Your task to perform on an android device: star an email in the gmail app Image 0: 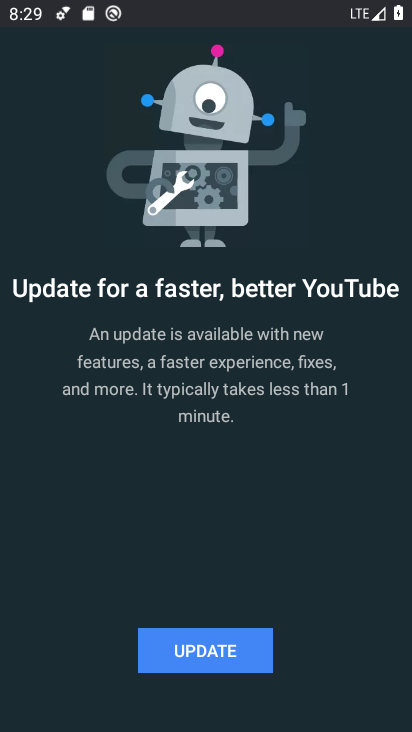
Step 0: press back button
Your task to perform on an android device: star an email in the gmail app Image 1: 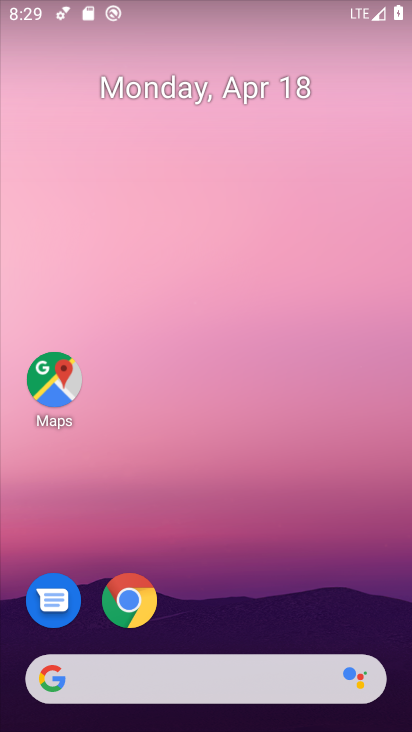
Step 1: drag from (271, 564) to (179, 43)
Your task to perform on an android device: star an email in the gmail app Image 2: 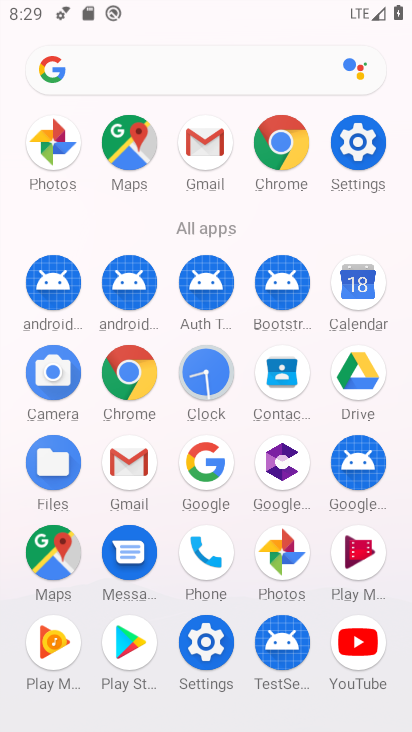
Step 2: drag from (16, 500) to (3, 275)
Your task to perform on an android device: star an email in the gmail app Image 3: 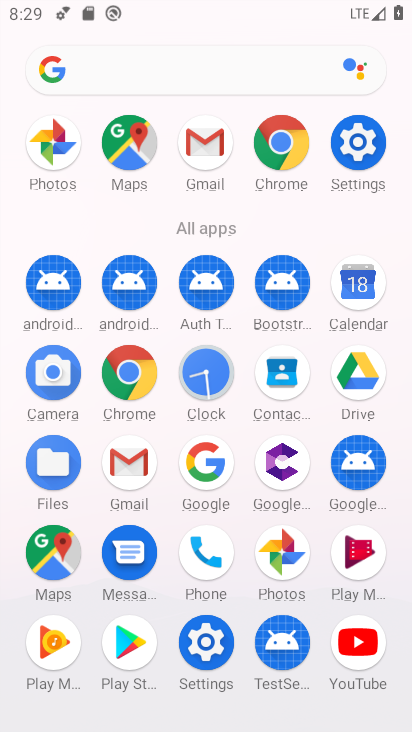
Step 3: click (126, 454)
Your task to perform on an android device: star an email in the gmail app Image 4: 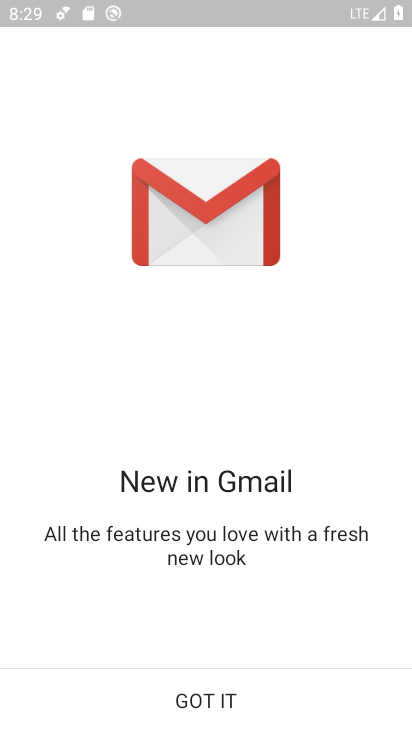
Step 4: click (232, 684)
Your task to perform on an android device: star an email in the gmail app Image 5: 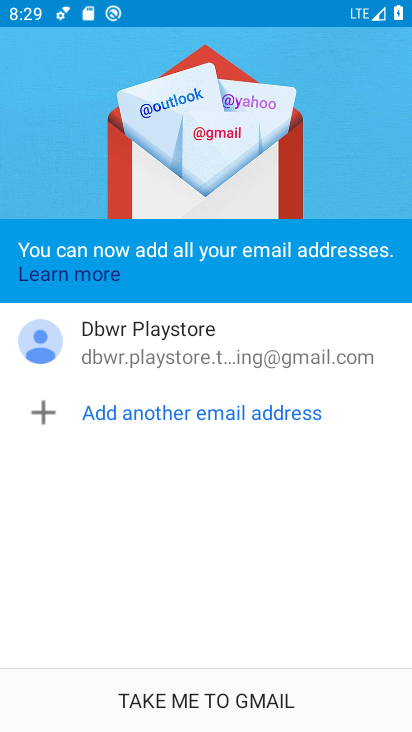
Step 5: click (263, 703)
Your task to perform on an android device: star an email in the gmail app Image 6: 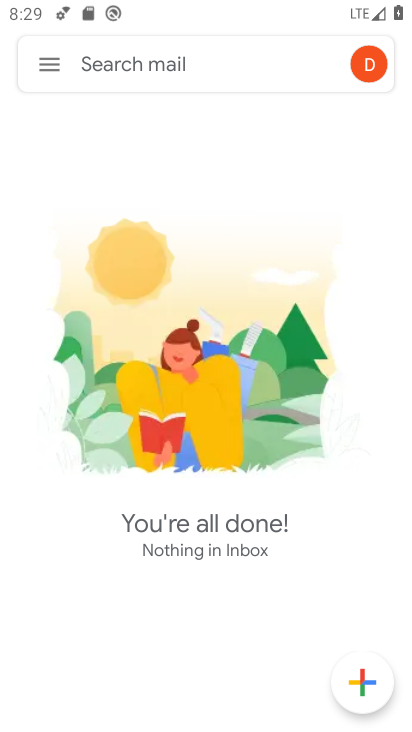
Step 6: click (51, 57)
Your task to perform on an android device: star an email in the gmail app Image 7: 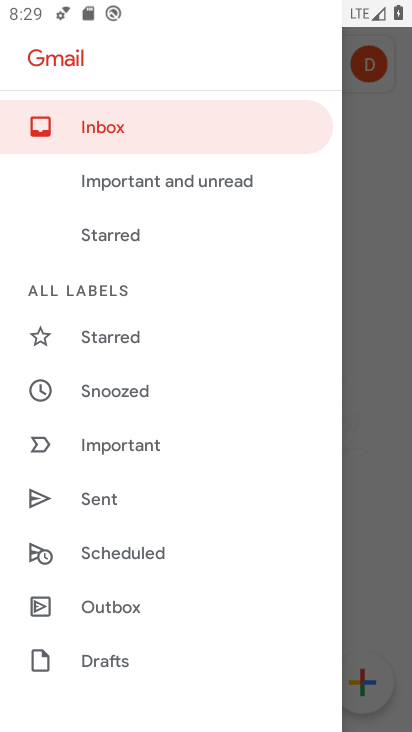
Step 7: click (141, 231)
Your task to perform on an android device: star an email in the gmail app Image 8: 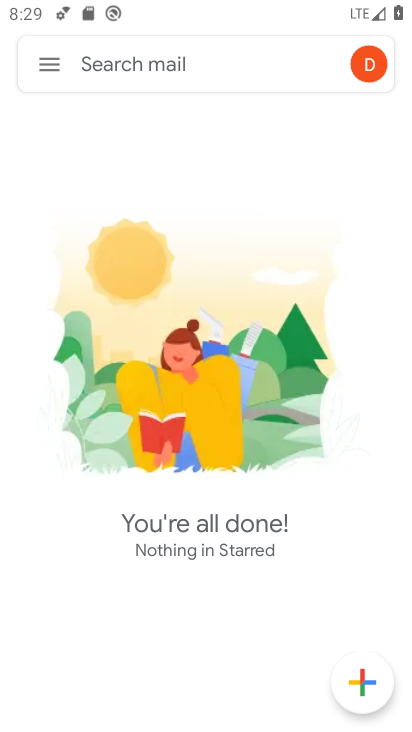
Step 8: click (55, 65)
Your task to perform on an android device: star an email in the gmail app Image 9: 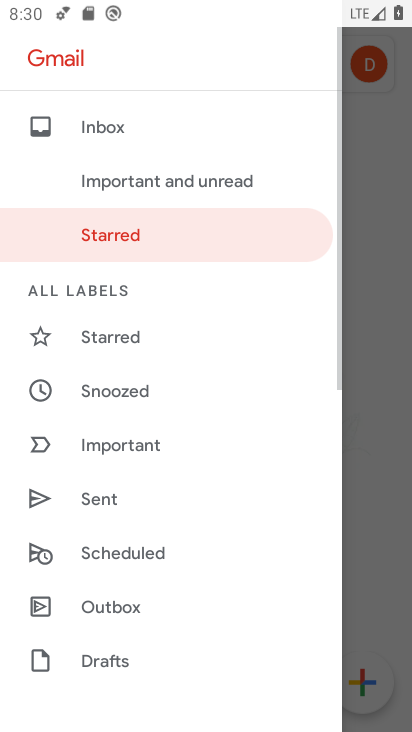
Step 9: click (164, 138)
Your task to perform on an android device: star an email in the gmail app Image 10: 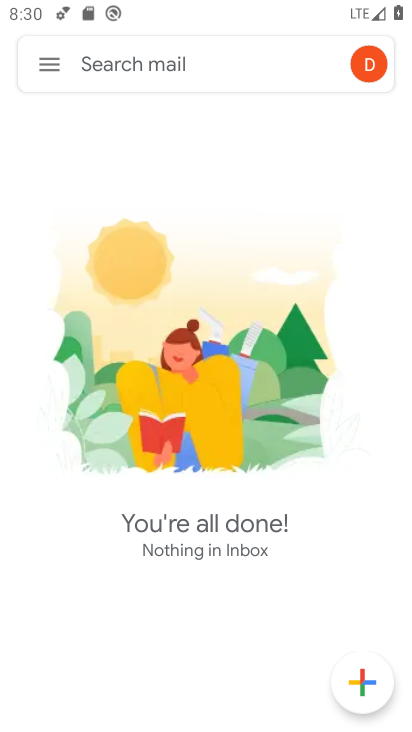
Step 10: click (53, 75)
Your task to perform on an android device: star an email in the gmail app Image 11: 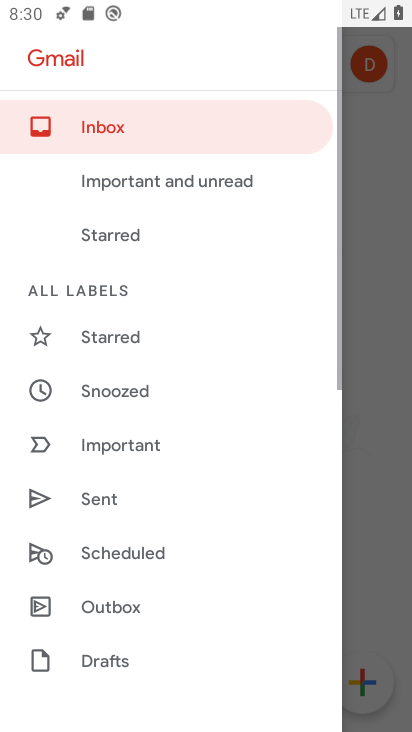
Step 11: drag from (173, 504) to (183, 138)
Your task to perform on an android device: star an email in the gmail app Image 12: 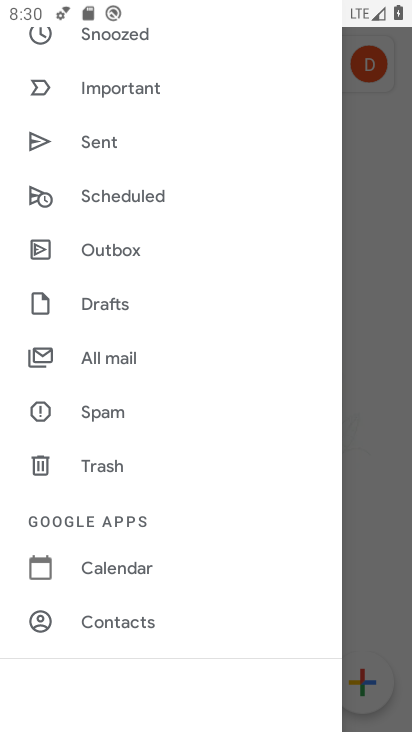
Step 12: click (124, 365)
Your task to perform on an android device: star an email in the gmail app Image 13: 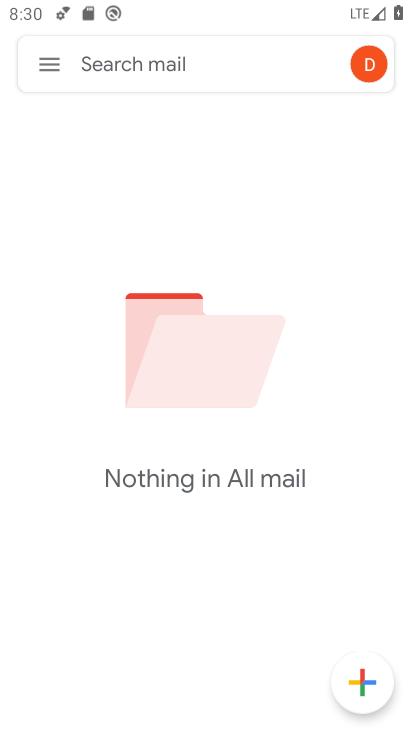
Step 13: task complete